Your task to perform on an android device: What's the weather? Image 0: 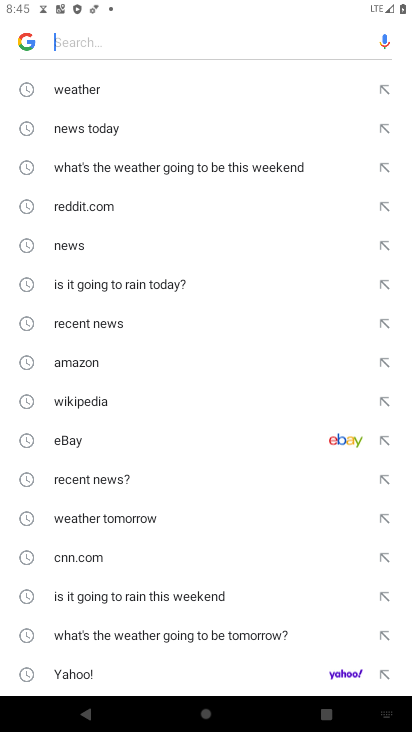
Step 0: press home button
Your task to perform on an android device: What's the weather? Image 1: 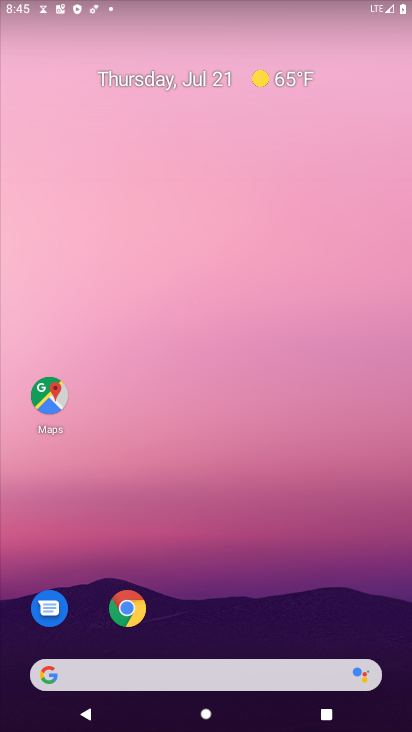
Step 1: drag from (163, 671) to (242, 280)
Your task to perform on an android device: What's the weather? Image 2: 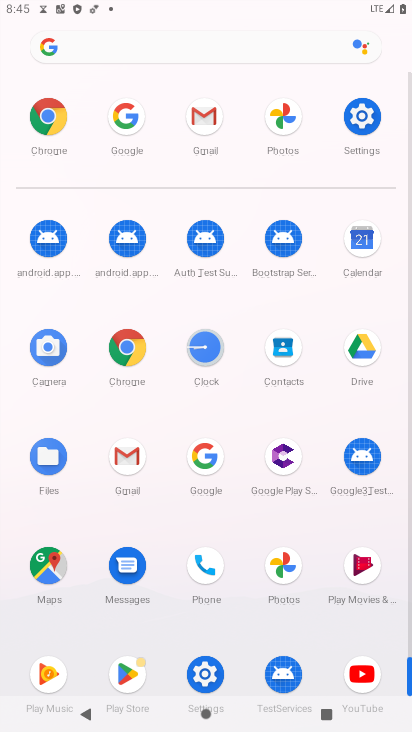
Step 2: click (202, 457)
Your task to perform on an android device: What's the weather? Image 3: 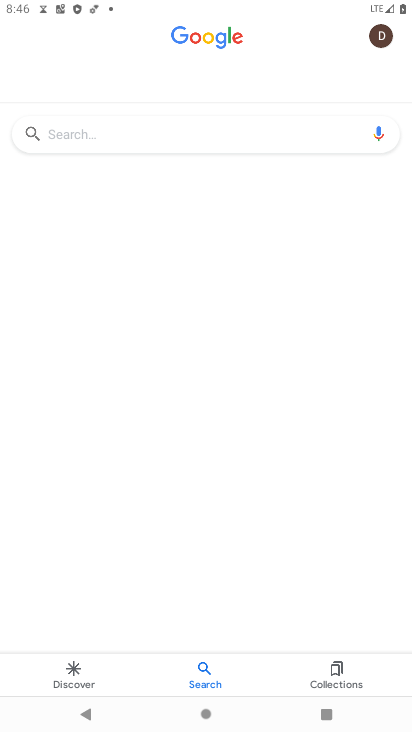
Step 3: click (227, 131)
Your task to perform on an android device: What's the weather? Image 4: 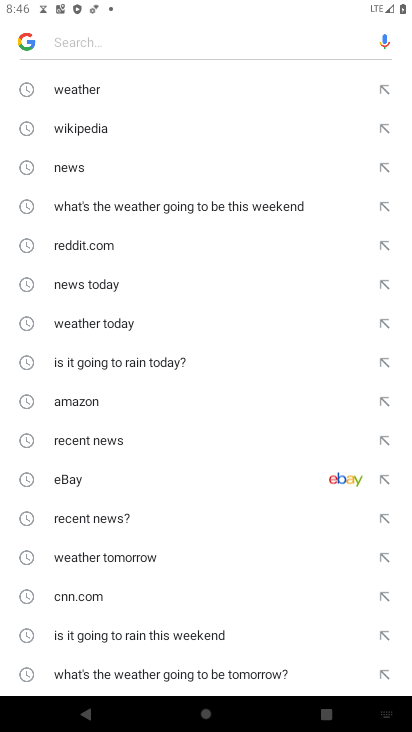
Step 4: click (80, 89)
Your task to perform on an android device: What's the weather? Image 5: 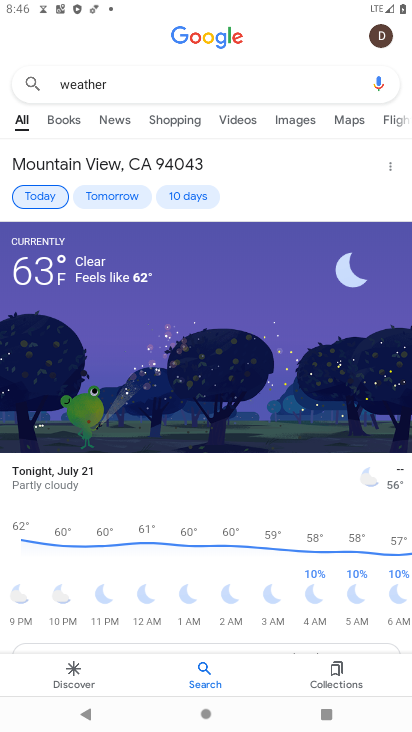
Step 5: task complete